Your task to perform on an android device: change notification settings in the gmail app Image 0: 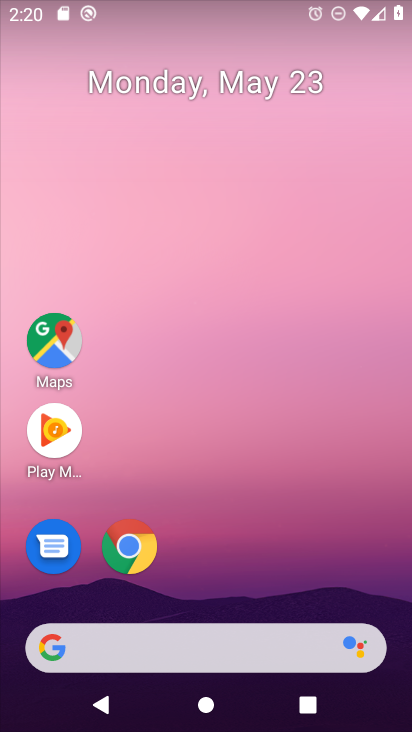
Step 0: drag from (226, 630) to (163, 181)
Your task to perform on an android device: change notification settings in the gmail app Image 1: 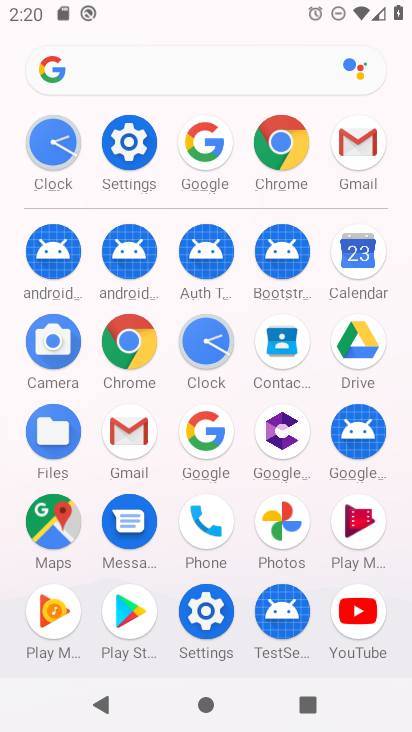
Step 1: click (139, 443)
Your task to perform on an android device: change notification settings in the gmail app Image 2: 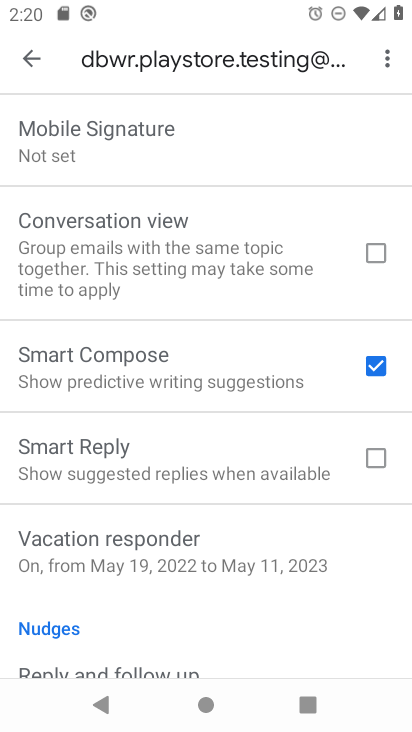
Step 2: click (32, 66)
Your task to perform on an android device: change notification settings in the gmail app Image 3: 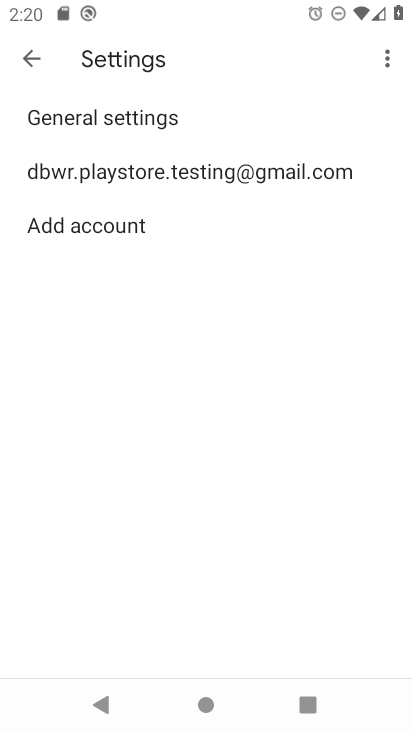
Step 3: click (161, 119)
Your task to perform on an android device: change notification settings in the gmail app Image 4: 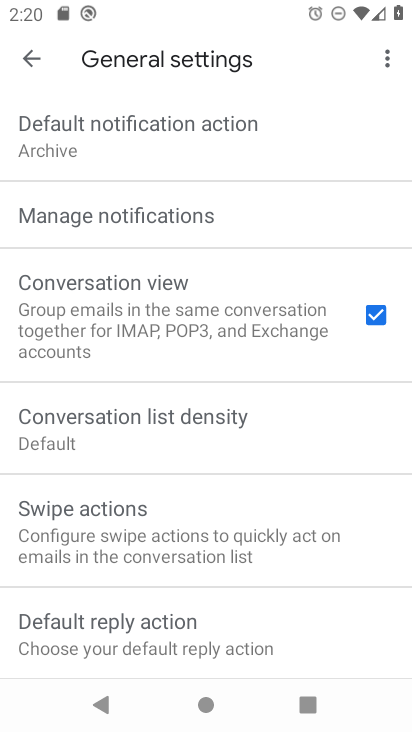
Step 4: click (215, 221)
Your task to perform on an android device: change notification settings in the gmail app Image 5: 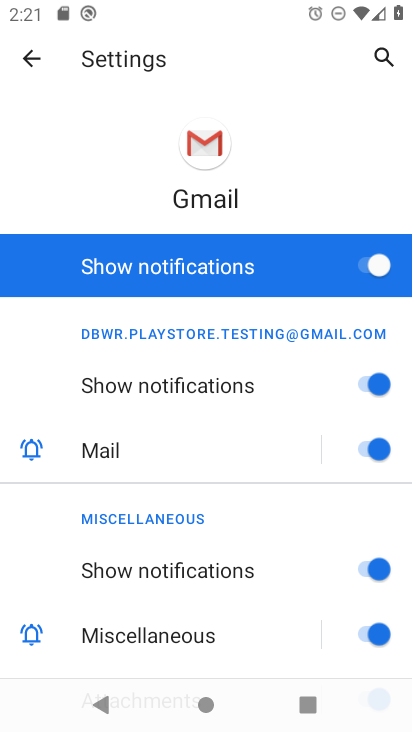
Step 5: click (362, 274)
Your task to perform on an android device: change notification settings in the gmail app Image 6: 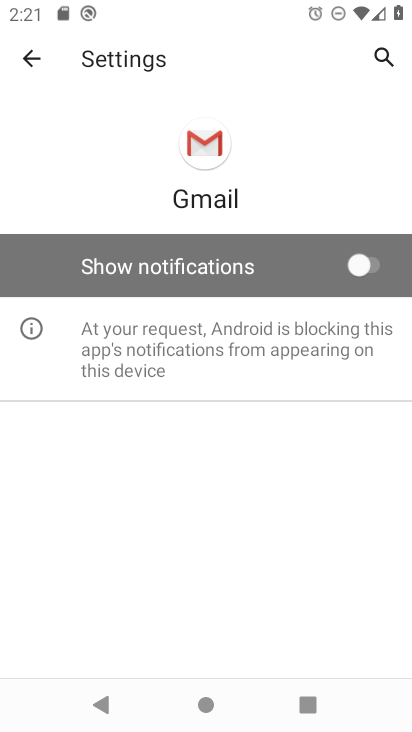
Step 6: task complete